Your task to perform on an android device: turn on improve location accuracy Image 0: 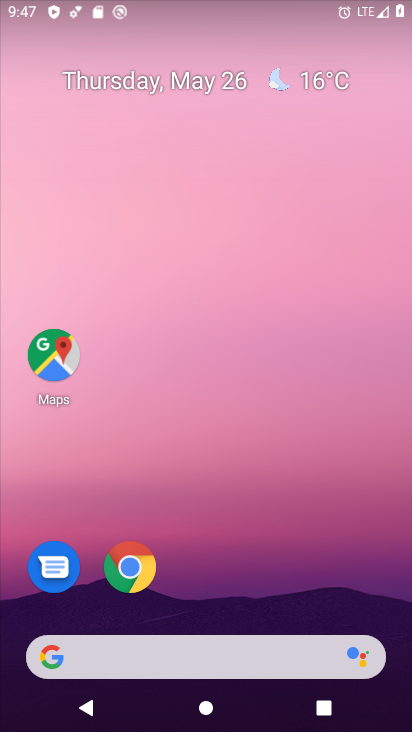
Step 0: drag from (393, 680) to (366, 149)
Your task to perform on an android device: turn on improve location accuracy Image 1: 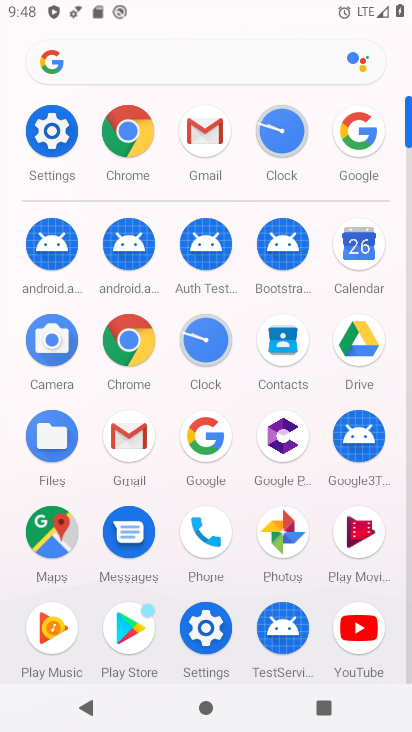
Step 1: click (67, 121)
Your task to perform on an android device: turn on improve location accuracy Image 2: 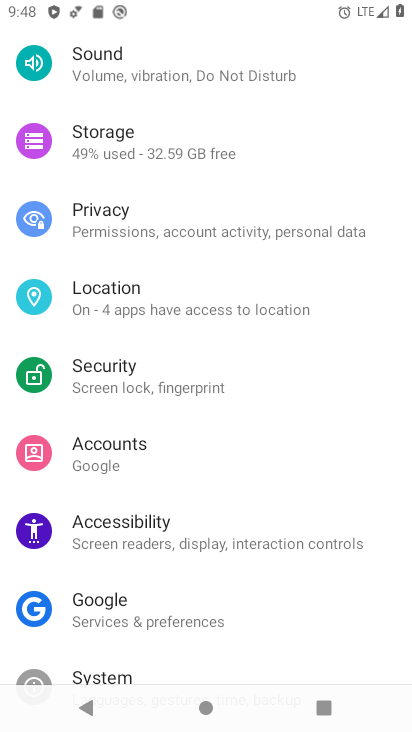
Step 2: click (126, 302)
Your task to perform on an android device: turn on improve location accuracy Image 3: 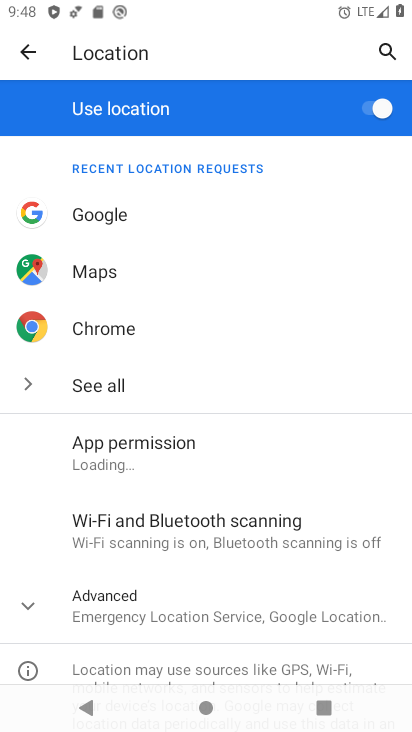
Step 3: click (8, 607)
Your task to perform on an android device: turn on improve location accuracy Image 4: 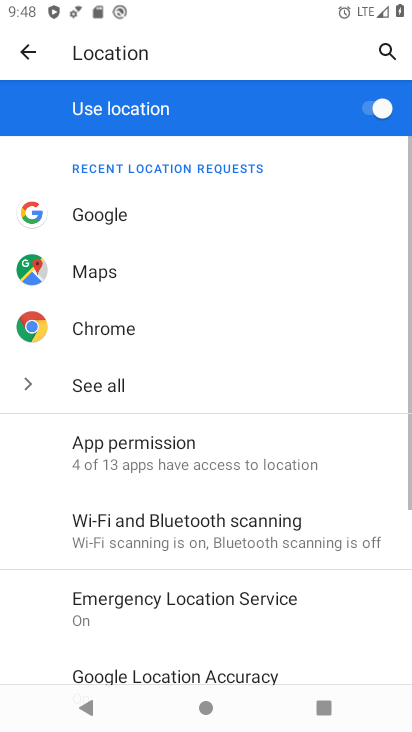
Step 4: drag from (309, 633) to (264, 245)
Your task to perform on an android device: turn on improve location accuracy Image 5: 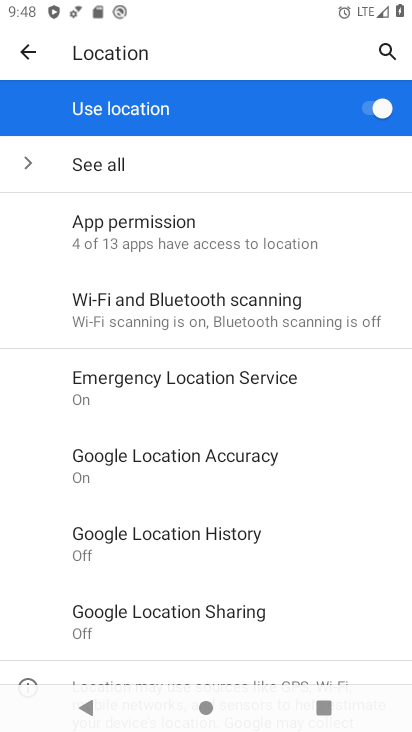
Step 5: click (116, 542)
Your task to perform on an android device: turn on improve location accuracy Image 6: 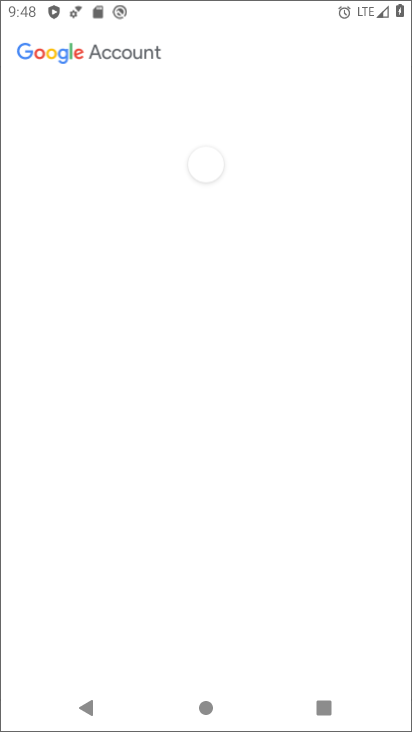
Step 6: click (21, 51)
Your task to perform on an android device: turn on improve location accuracy Image 7: 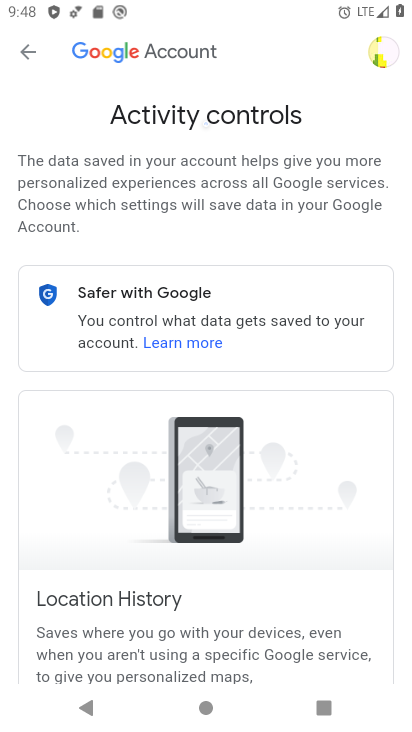
Step 7: click (17, 53)
Your task to perform on an android device: turn on improve location accuracy Image 8: 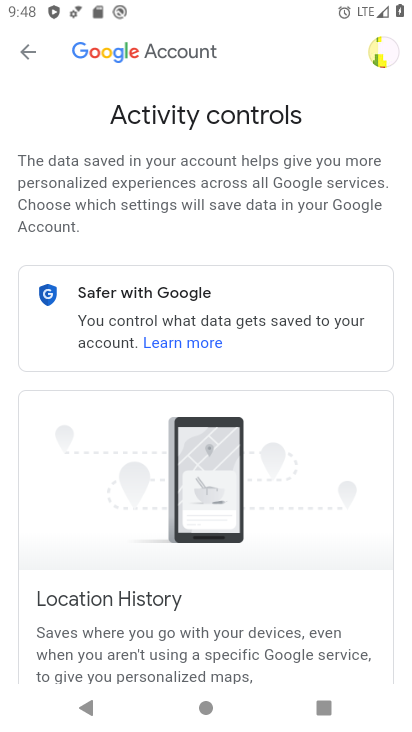
Step 8: click (17, 53)
Your task to perform on an android device: turn on improve location accuracy Image 9: 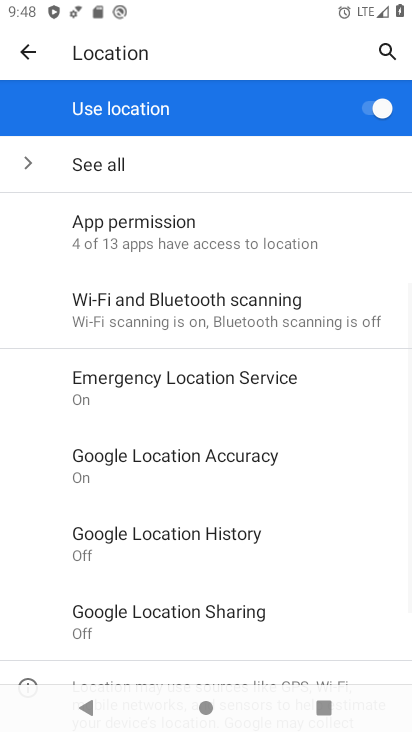
Step 9: click (153, 461)
Your task to perform on an android device: turn on improve location accuracy Image 10: 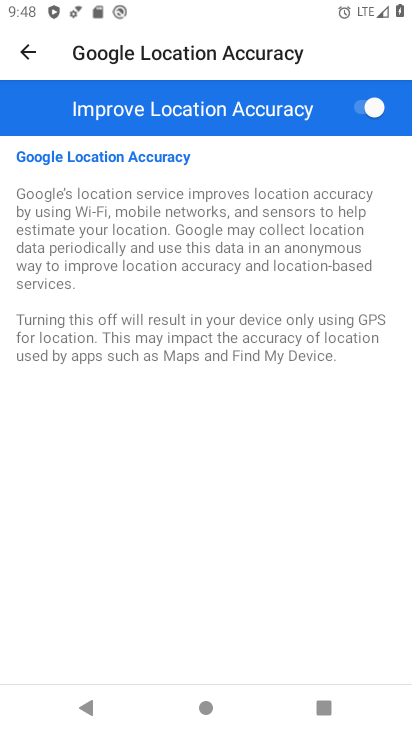
Step 10: task complete